Your task to perform on an android device: turn off location Image 0: 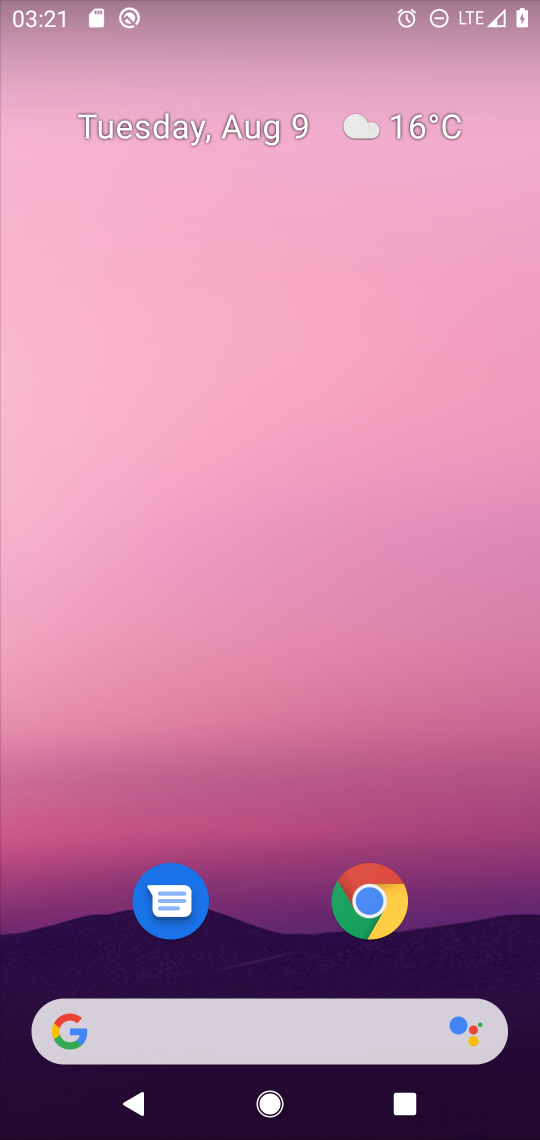
Step 0: drag from (520, 954) to (453, 231)
Your task to perform on an android device: turn off location Image 1: 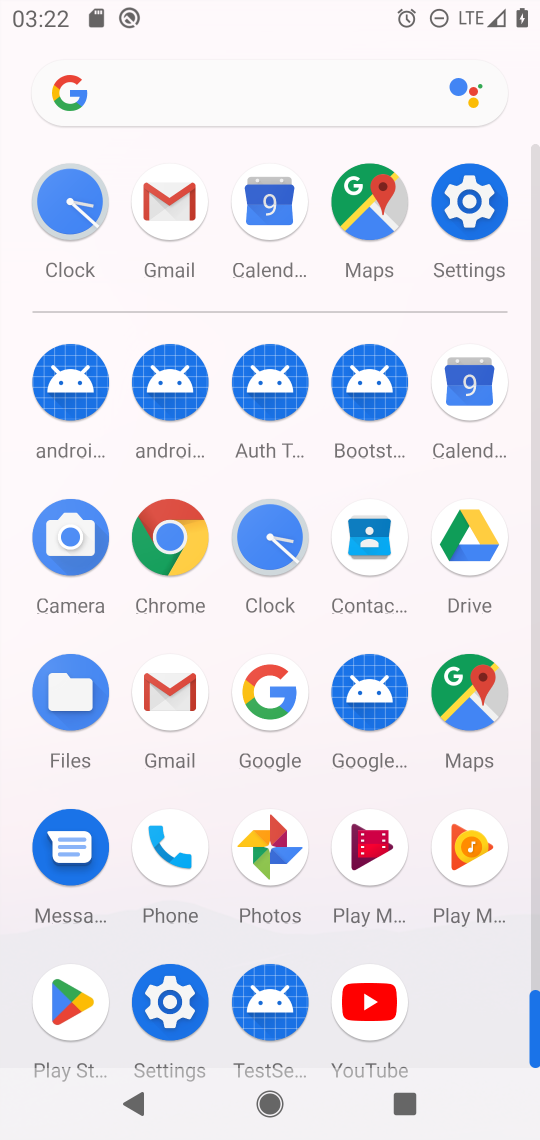
Step 1: click (167, 1005)
Your task to perform on an android device: turn off location Image 2: 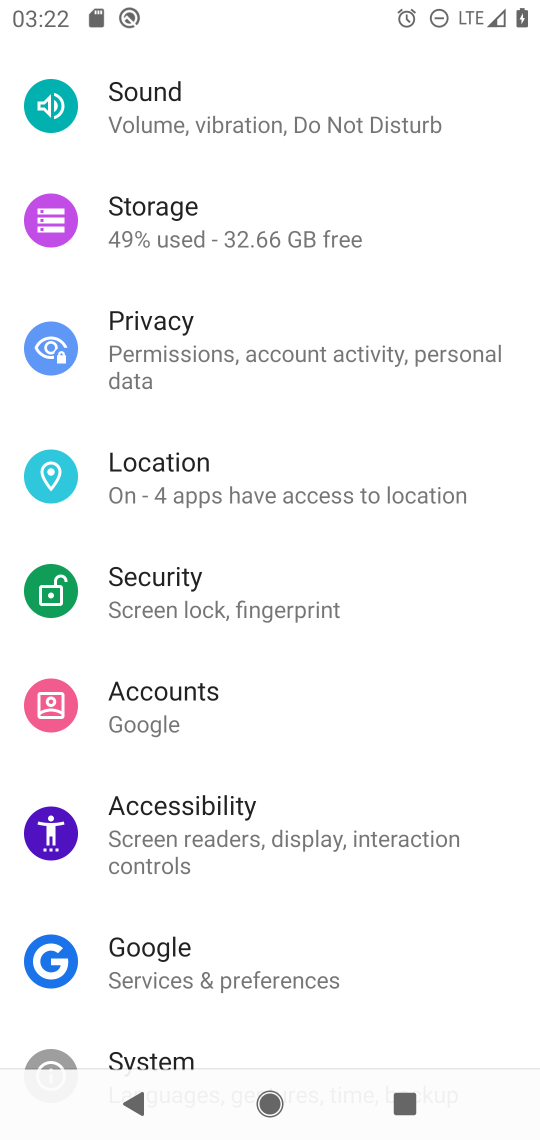
Step 2: click (198, 485)
Your task to perform on an android device: turn off location Image 3: 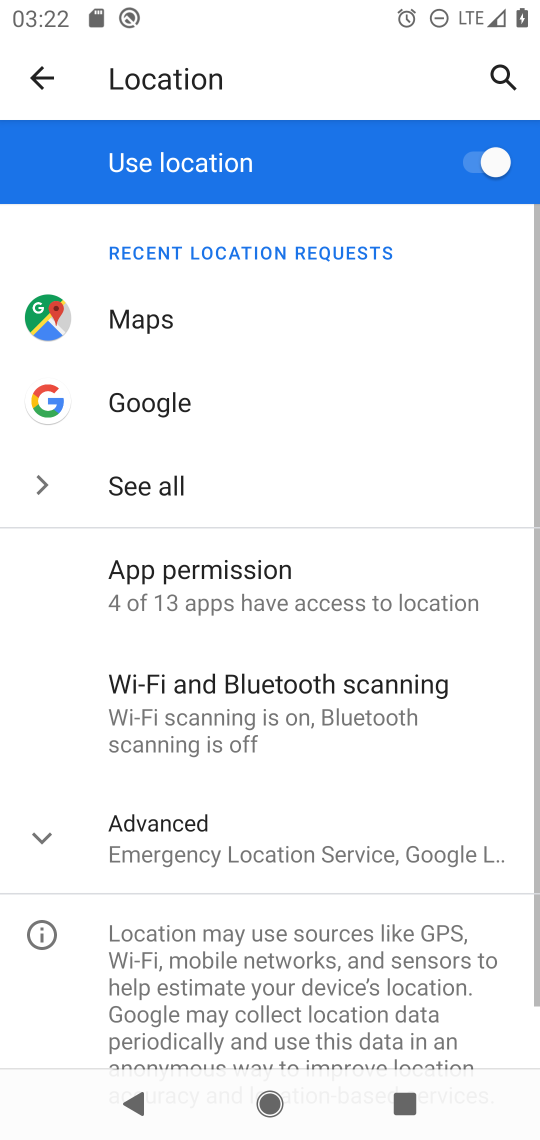
Step 3: click (478, 154)
Your task to perform on an android device: turn off location Image 4: 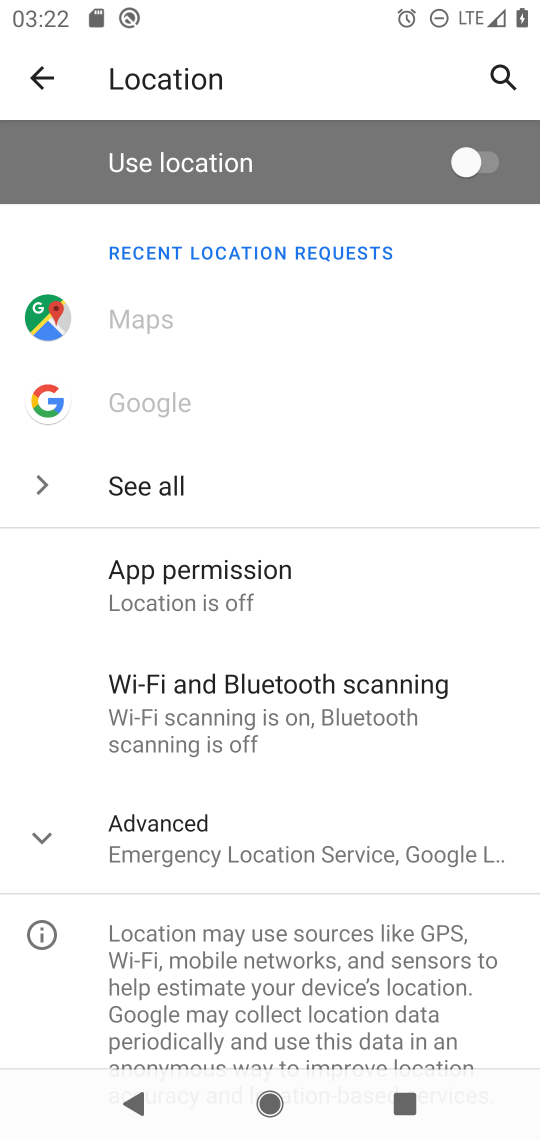
Step 4: task complete